Your task to perform on an android device: Search for razer blade on bestbuy, select the first entry, and add it to the cart. Image 0: 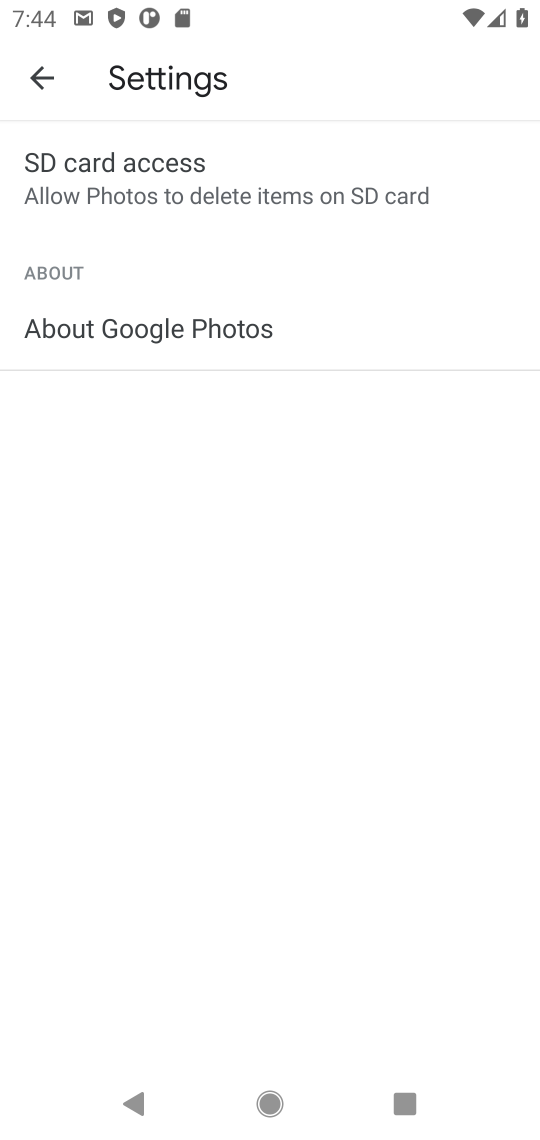
Step 0: press home button
Your task to perform on an android device: Search for razer blade on bestbuy, select the first entry, and add it to the cart. Image 1: 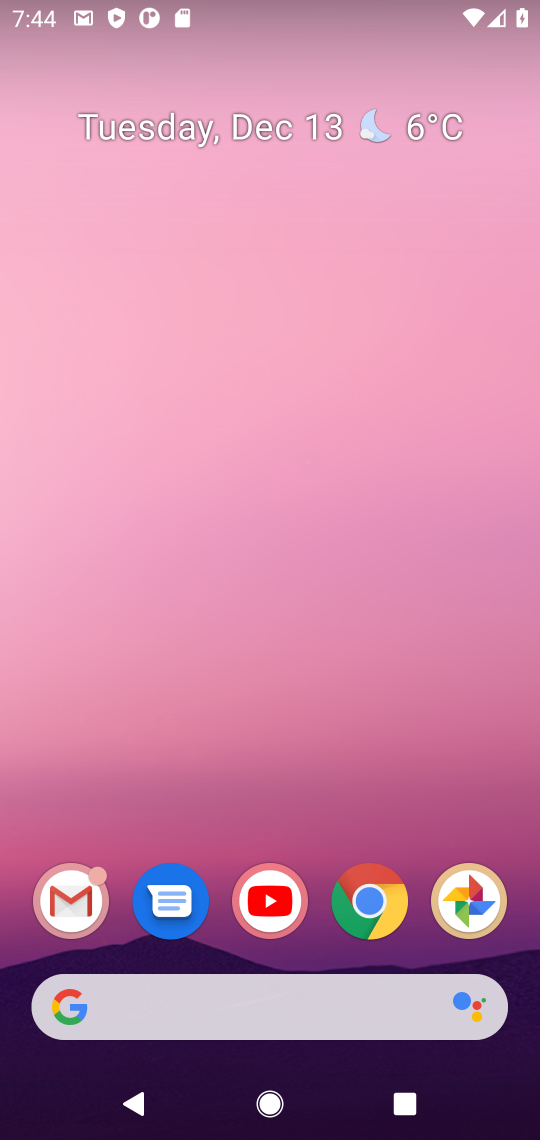
Step 1: click (391, 910)
Your task to perform on an android device: Search for razer blade on bestbuy, select the first entry, and add it to the cart. Image 2: 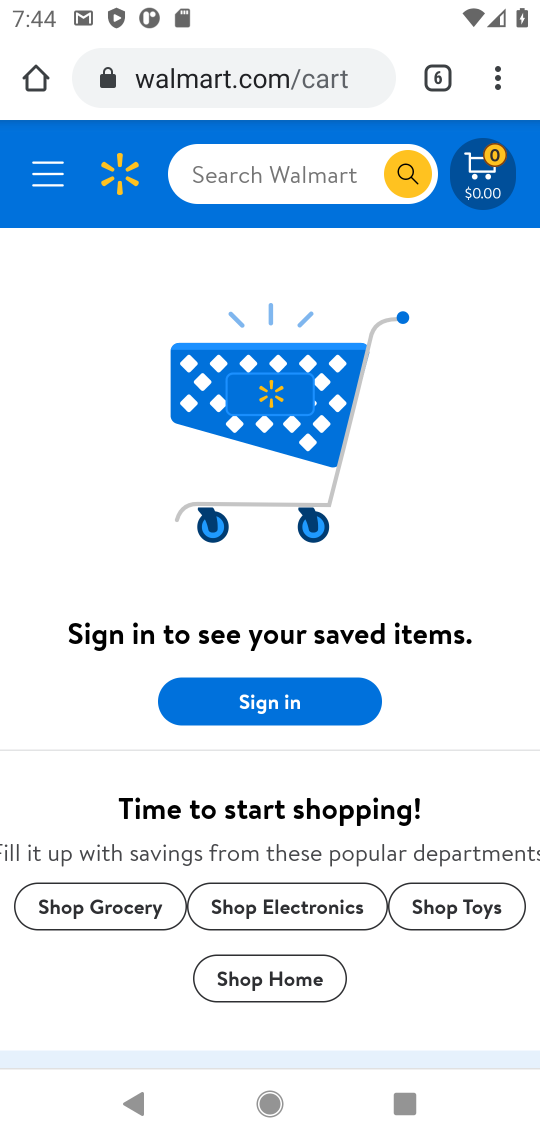
Step 2: click (431, 84)
Your task to perform on an android device: Search for razer blade on bestbuy, select the first entry, and add it to the cart. Image 3: 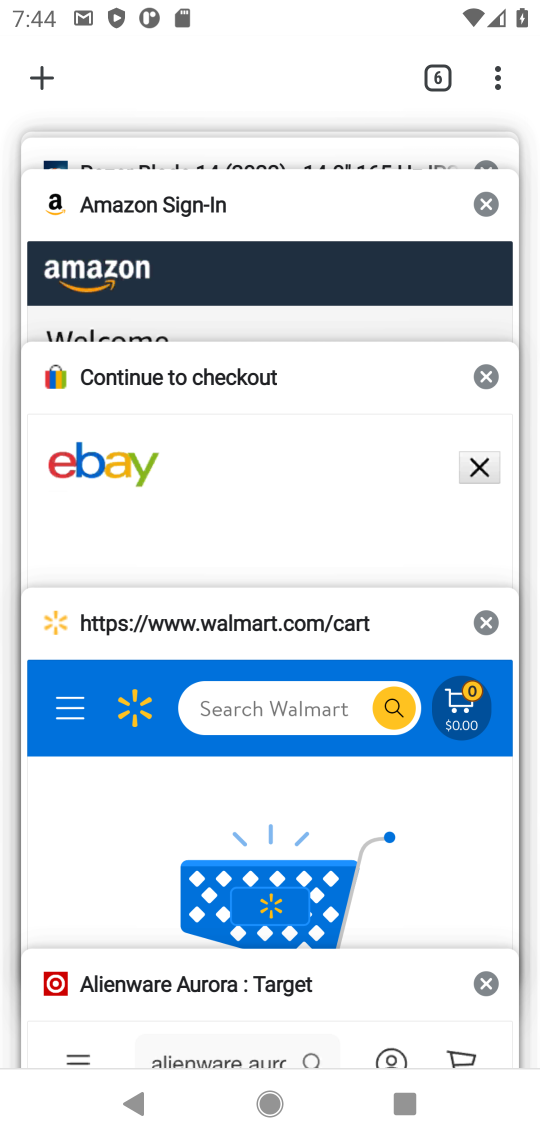
Step 3: drag from (300, 181) to (263, 534)
Your task to perform on an android device: Search for razer blade on bestbuy, select the first entry, and add it to the cart. Image 4: 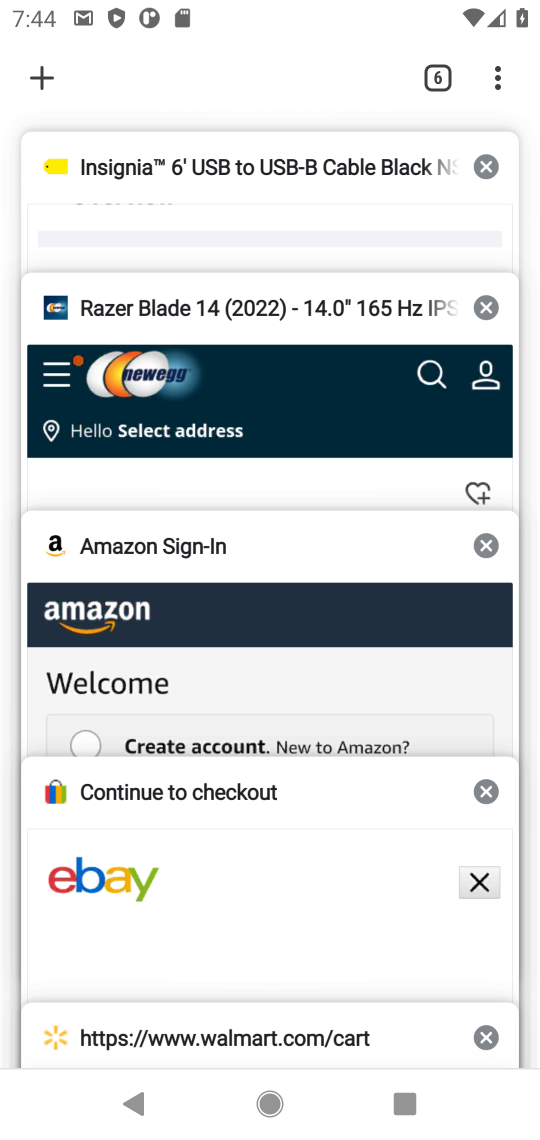
Step 4: drag from (316, 198) to (280, 342)
Your task to perform on an android device: Search for razer blade on bestbuy, select the first entry, and add it to the cart. Image 5: 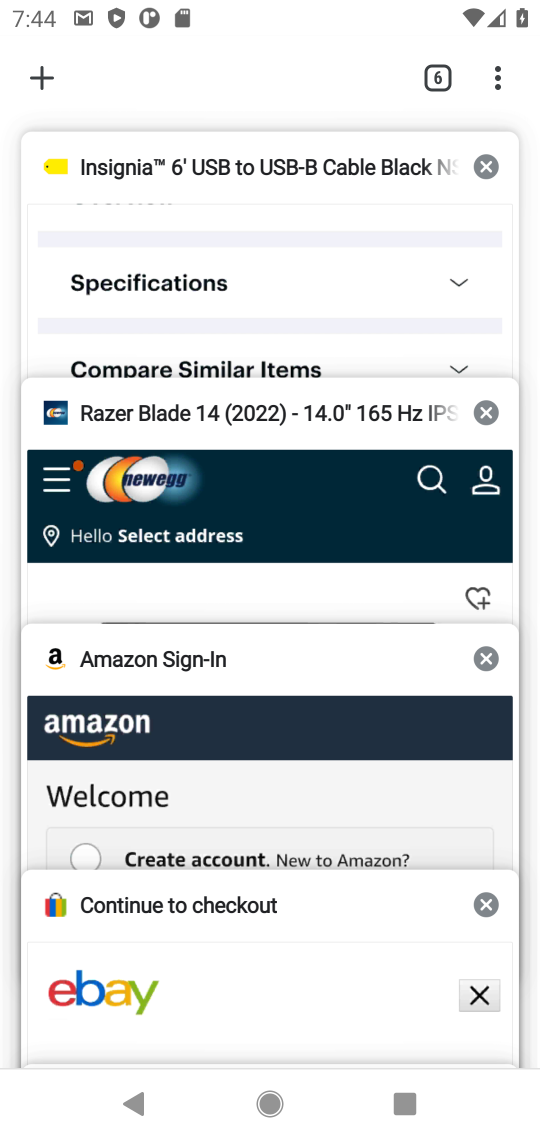
Step 5: click (337, 243)
Your task to perform on an android device: Search for razer blade on bestbuy, select the first entry, and add it to the cart. Image 6: 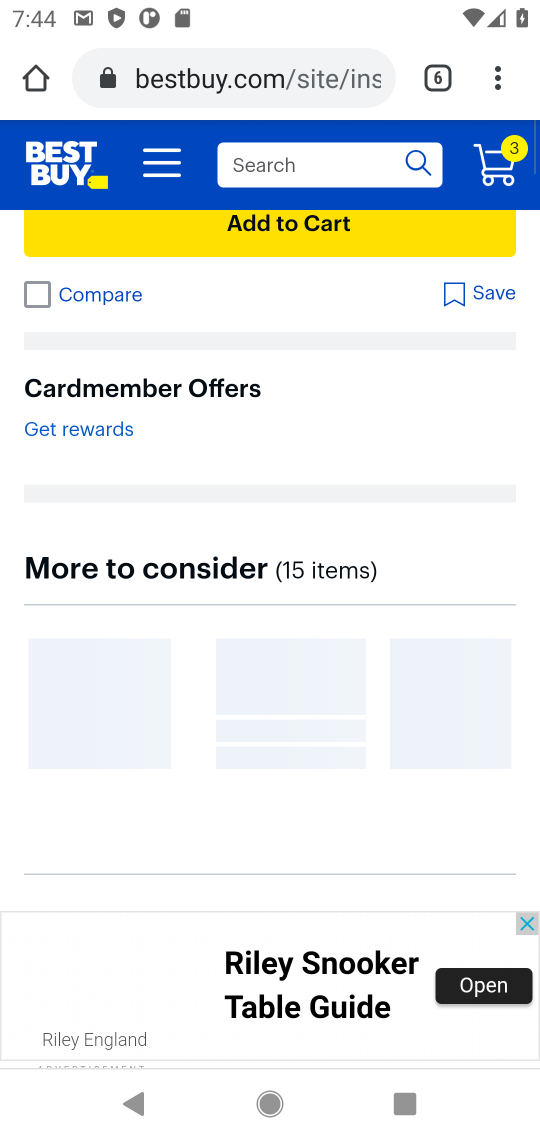
Step 6: click (302, 161)
Your task to perform on an android device: Search for razer blade on bestbuy, select the first entry, and add it to the cart. Image 7: 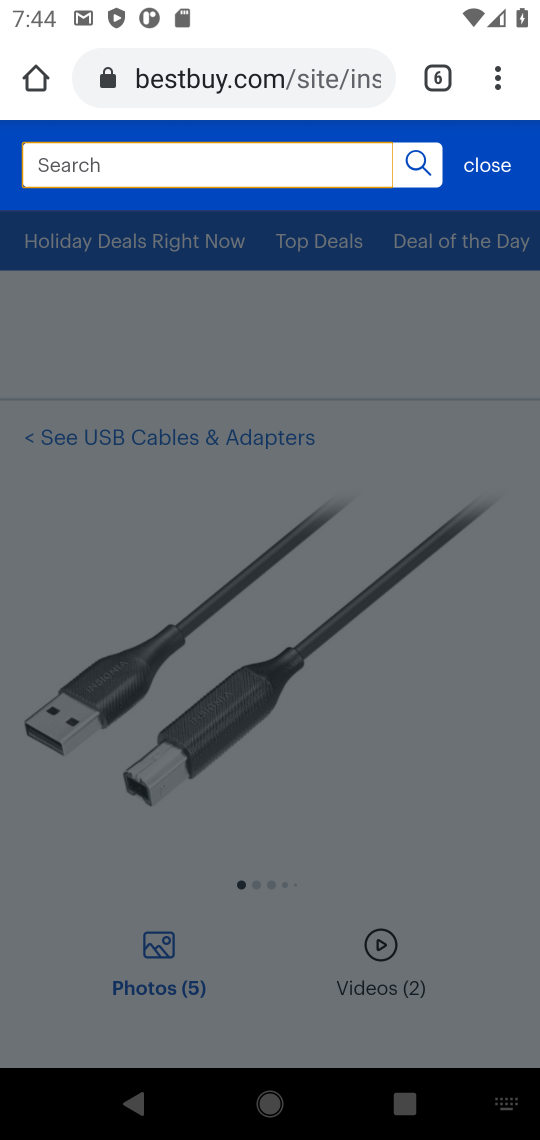
Step 7: type "razer blade"
Your task to perform on an android device: Search for razer blade on bestbuy, select the first entry, and add it to the cart. Image 8: 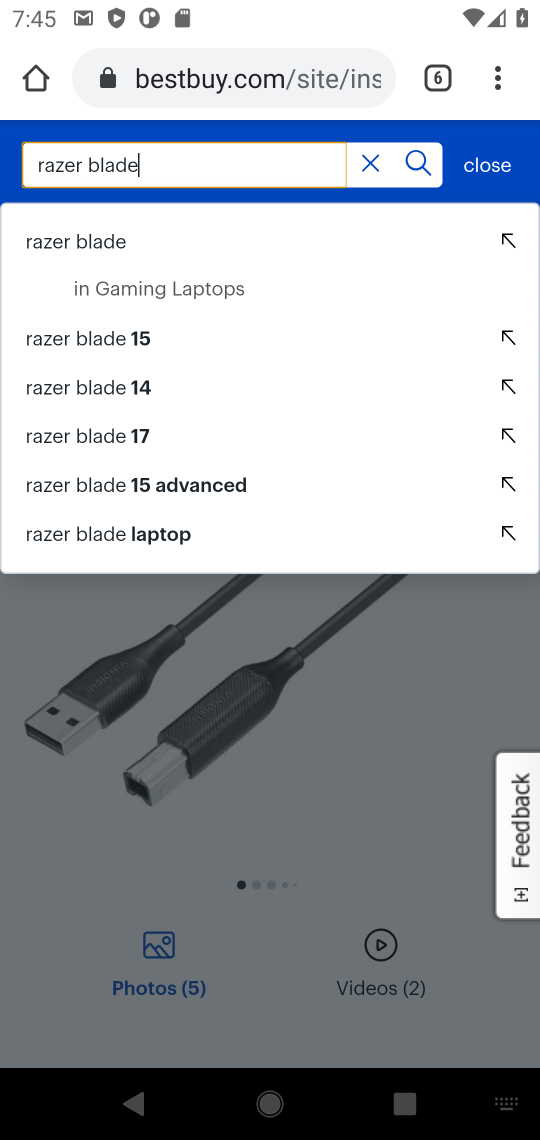
Step 8: click (96, 239)
Your task to perform on an android device: Search for razer blade on bestbuy, select the first entry, and add it to the cart. Image 9: 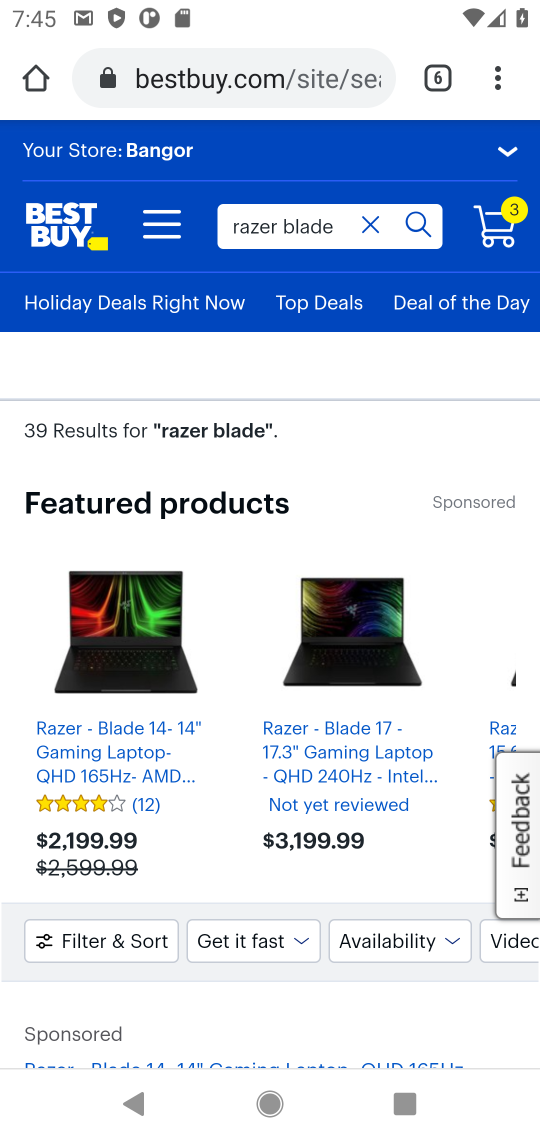
Step 9: drag from (150, 999) to (257, 513)
Your task to perform on an android device: Search for razer blade on bestbuy, select the first entry, and add it to the cart. Image 10: 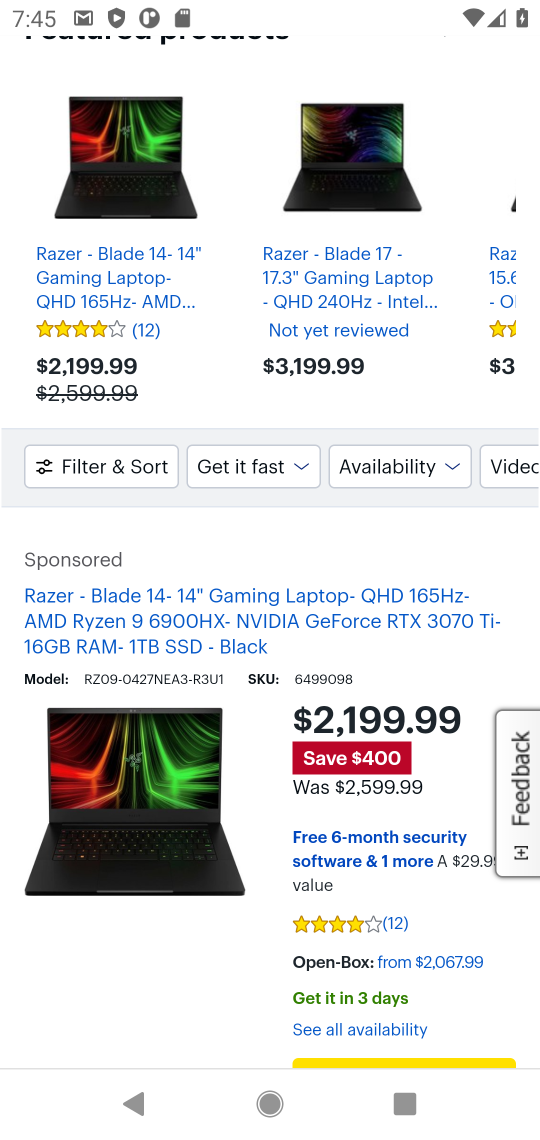
Step 10: drag from (220, 1028) to (306, 649)
Your task to perform on an android device: Search for razer blade on bestbuy, select the first entry, and add it to the cart. Image 11: 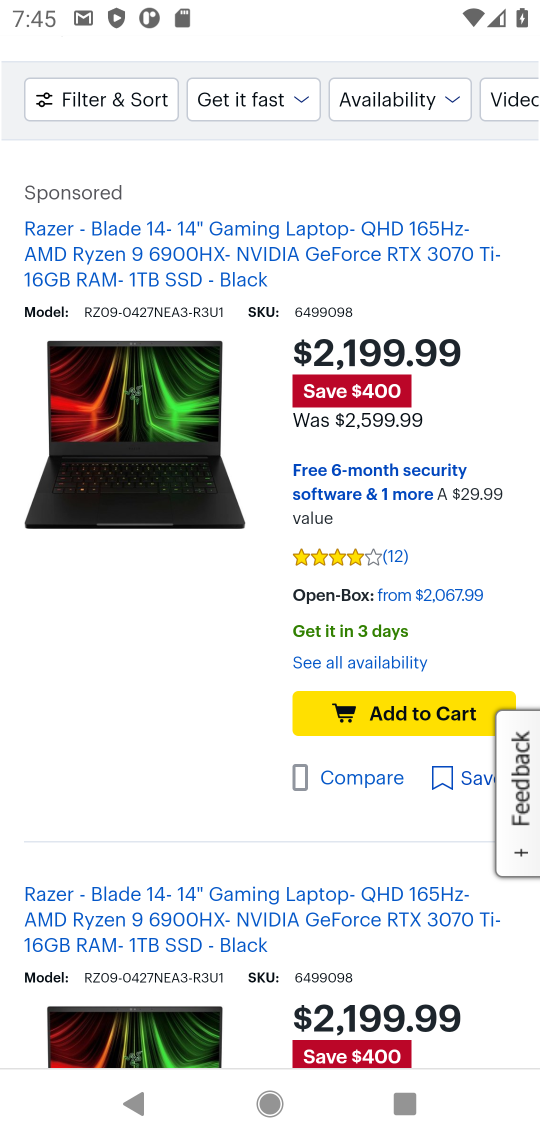
Step 11: click (412, 700)
Your task to perform on an android device: Search for razer blade on bestbuy, select the first entry, and add it to the cart. Image 12: 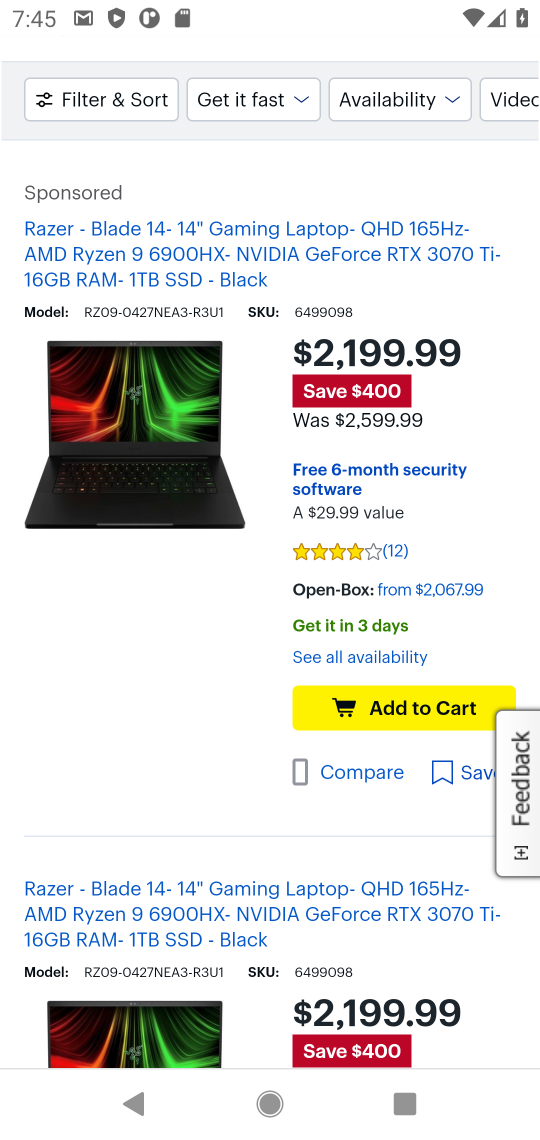
Step 12: task complete